Your task to perform on an android device: Open the stopwatch Image 0: 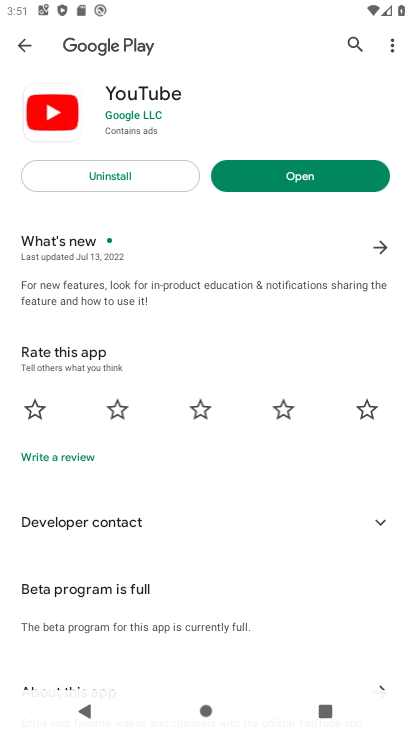
Step 0: press home button
Your task to perform on an android device: Open the stopwatch Image 1: 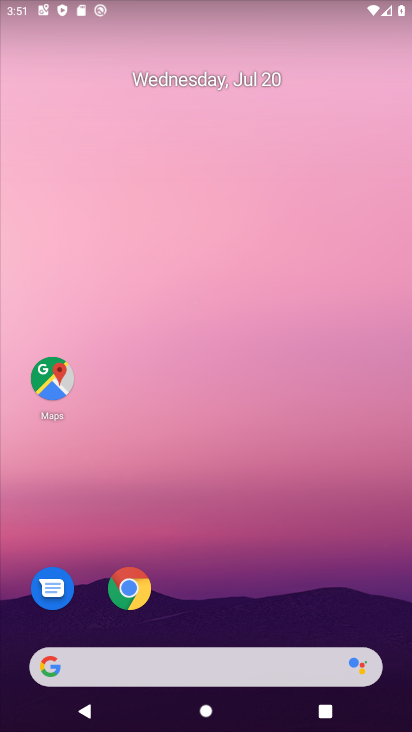
Step 1: drag from (242, 515) to (257, 80)
Your task to perform on an android device: Open the stopwatch Image 2: 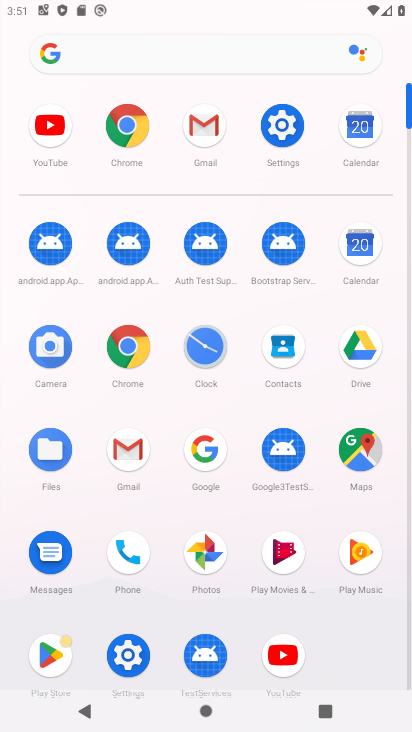
Step 2: click (193, 337)
Your task to perform on an android device: Open the stopwatch Image 3: 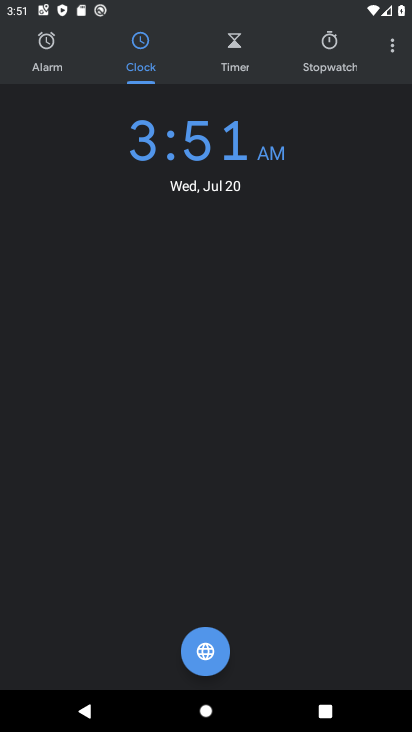
Step 3: click (326, 66)
Your task to perform on an android device: Open the stopwatch Image 4: 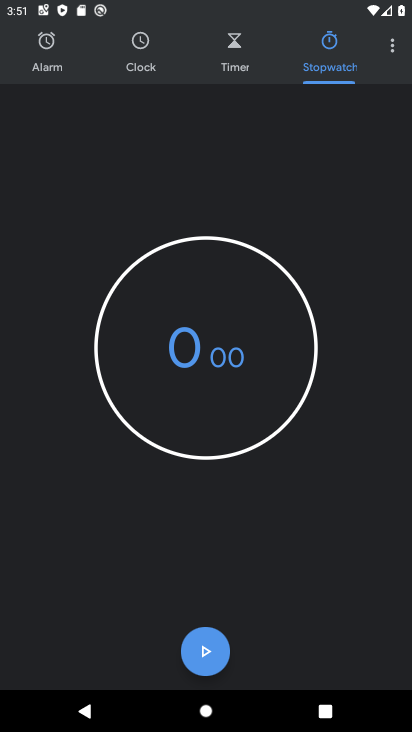
Step 4: task complete